Your task to perform on an android device: Open network settings Image 0: 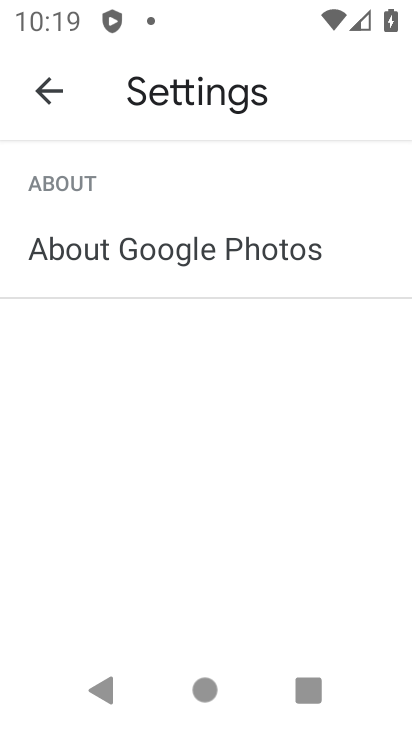
Step 0: press home button
Your task to perform on an android device: Open network settings Image 1: 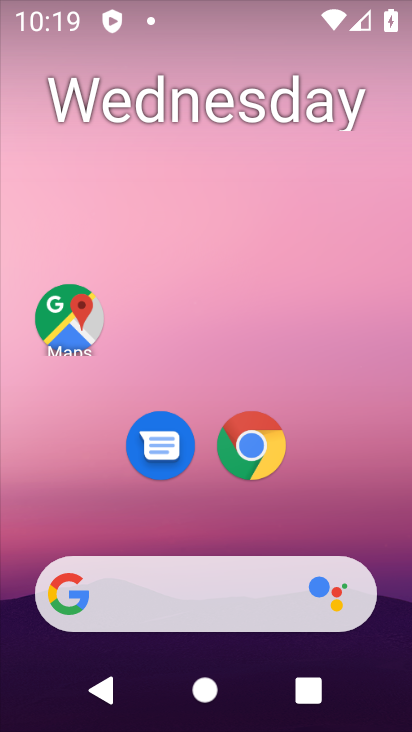
Step 1: drag from (228, 723) to (235, 181)
Your task to perform on an android device: Open network settings Image 2: 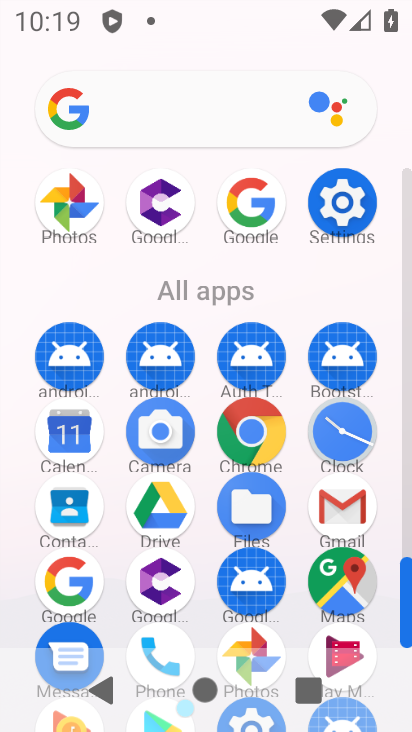
Step 2: click (335, 199)
Your task to perform on an android device: Open network settings Image 3: 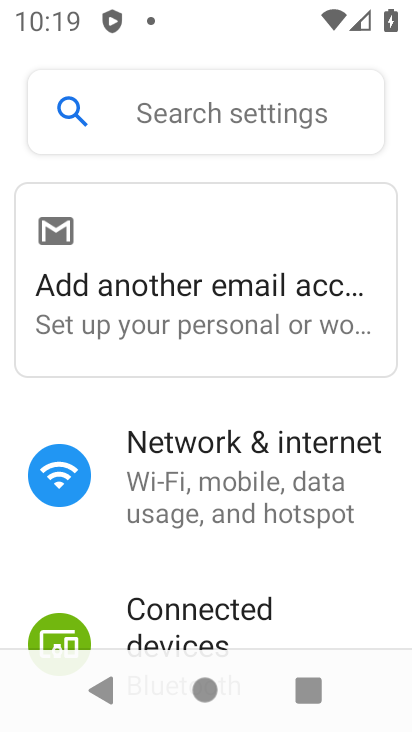
Step 3: click (237, 454)
Your task to perform on an android device: Open network settings Image 4: 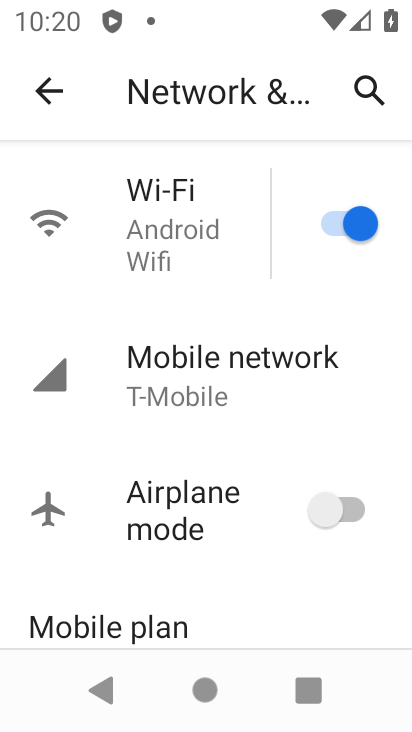
Step 4: click (177, 351)
Your task to perform on an android device: Open network settings Image 5: 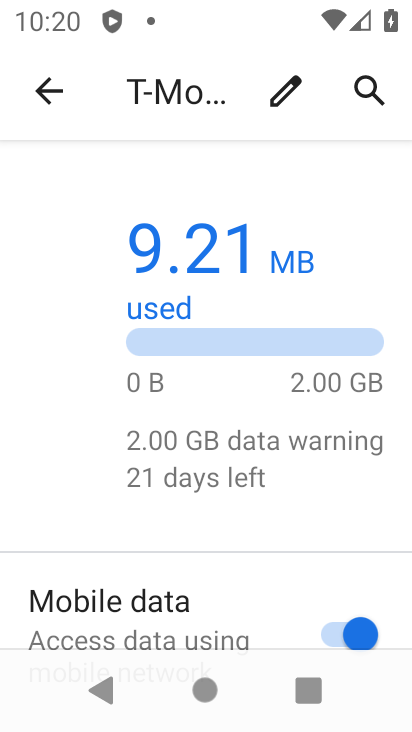
Step 5: task complete